Your task to perform on an android device: change the upload size in google photos Image 0: 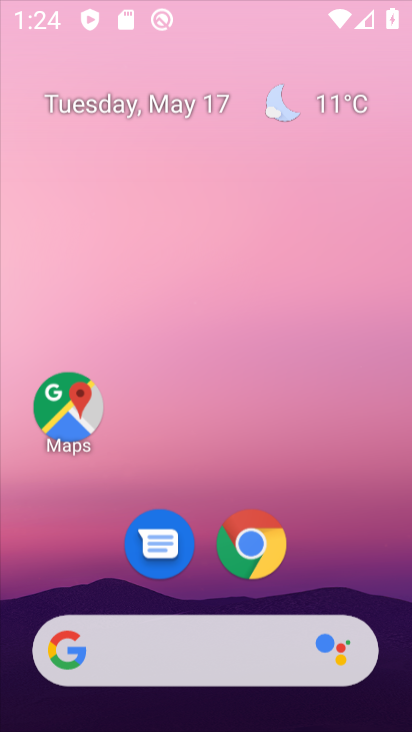
Step 0: press home button
Your task to perform on an android device: change the upload size in google photos Image 1: 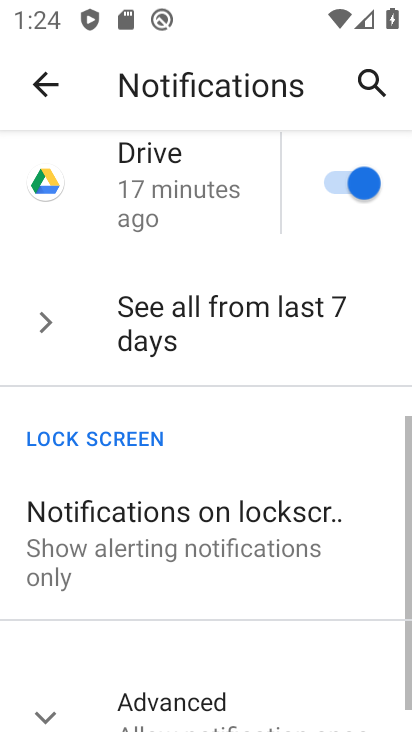
Step 1: press home button
Your task to perform on an android device: change the upload size in google photos Image 2: 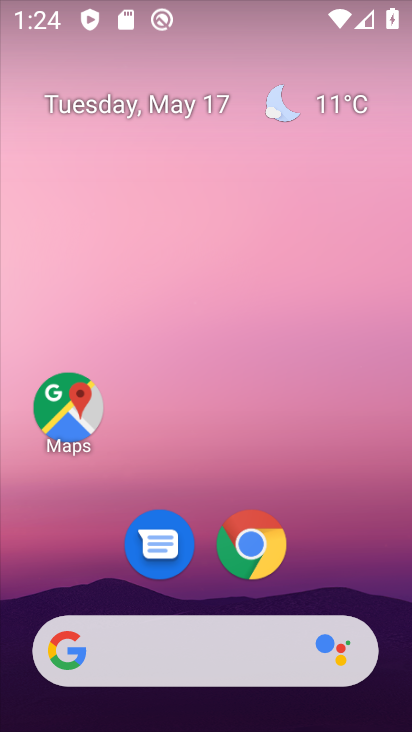
Step 2: drag from (381, 515) to (334, 58)
Your task to perform on an android device: change the upload size in google photos Image 3: 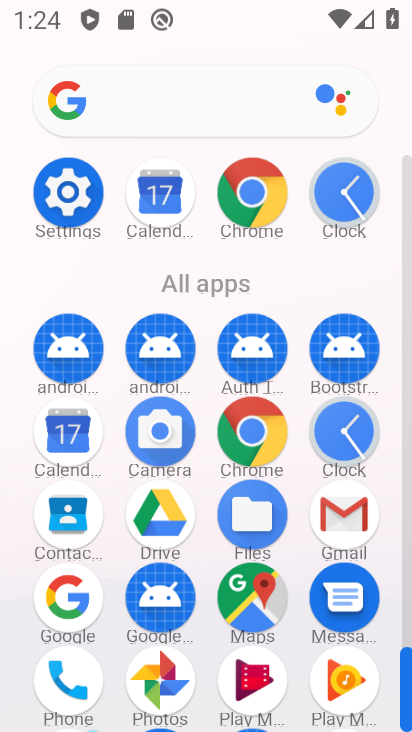
Step 3: click (154, 690)
Your task to perform on an android device: change the upload size in google photos Image 4: 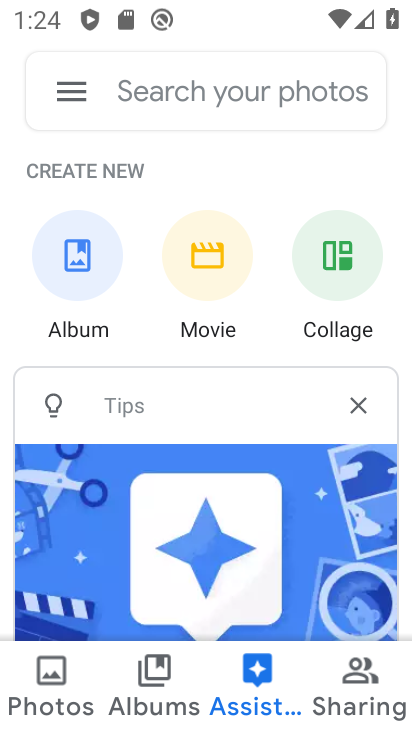
Step 4: click (79, 89)
Your task to perform on an android device: change the upload size in google photos Image 5: 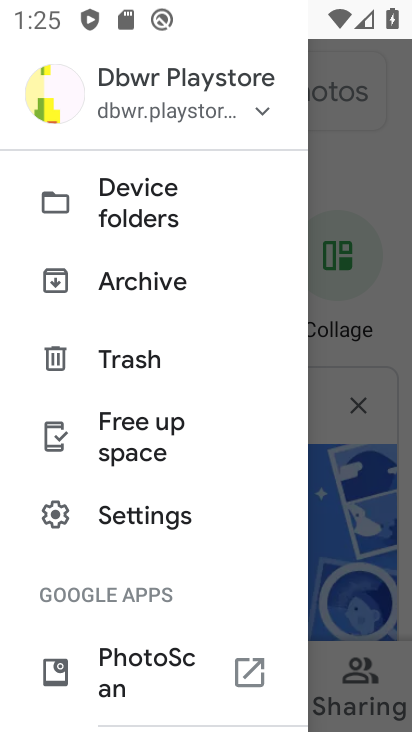
Step 5: click (155, 518)
Your task to perform on an android device: change the upload size in google photos Image 6: 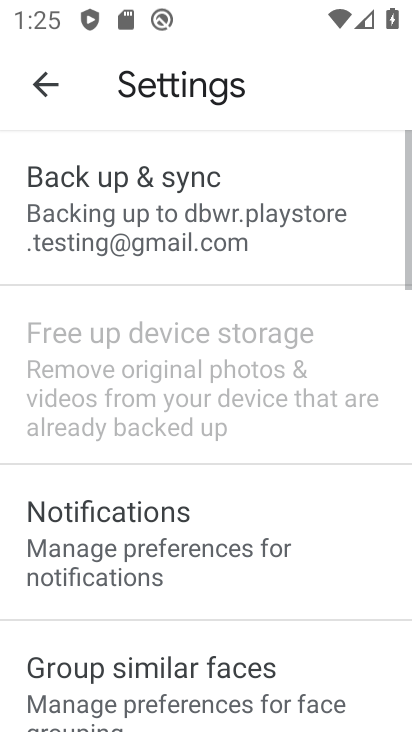
Step 6: click (163, 200)
Your task to perform on an android device: change the upload size in google photos Image 7: 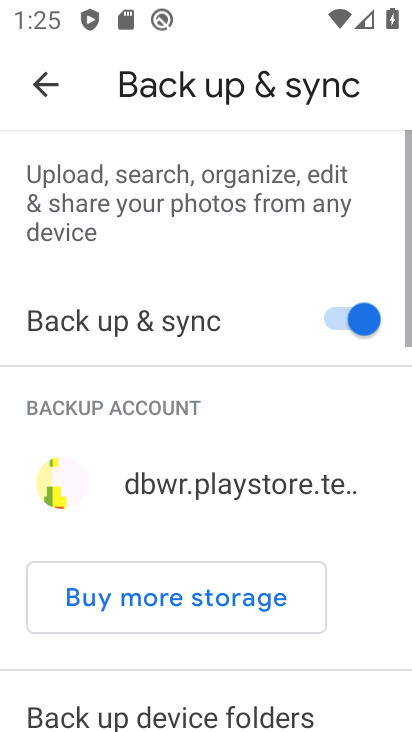
Step 7: drag from (194, 459) to (195, 217)
Your task to perform on an android device: change the upload size in google photos Image 8: 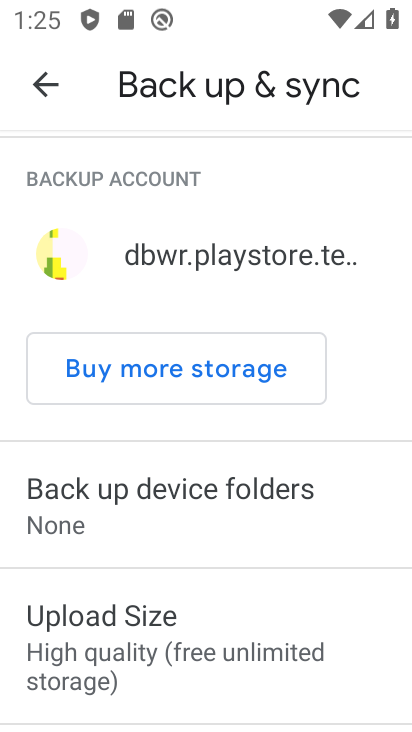
Step 8: click (161, 613)
Your task to perform on an android device: change the upload size in google photos Image 9: 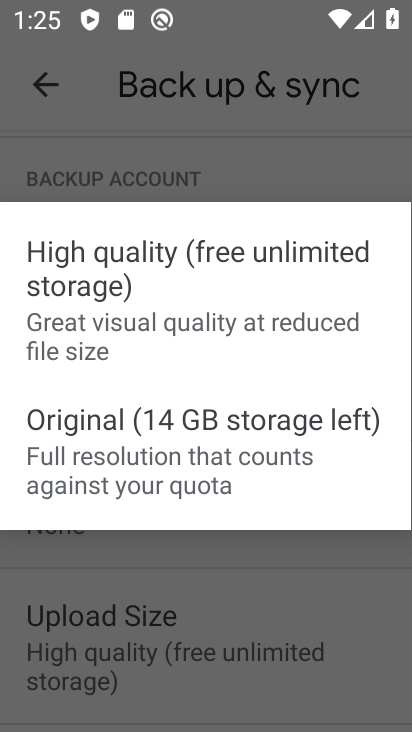
Step 9: click (163, 486)
Your task to perform on an android device: change the upload size in google photos Image 10: 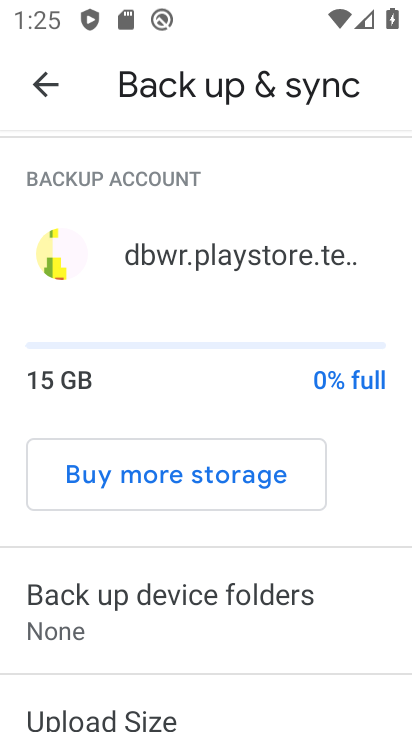
Step 10: task complete